Your task to perform on an android device: toggle wifi Image 0: 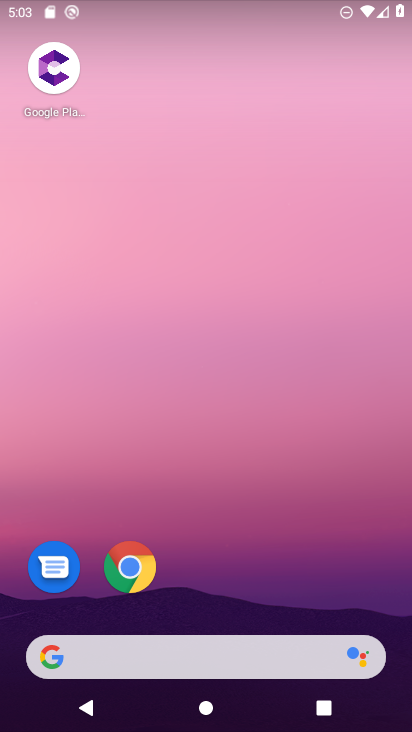
Step 0: drag from (221, 586) to (226, 68)
Your task to perform on an android device: toggle wifi Image 1: 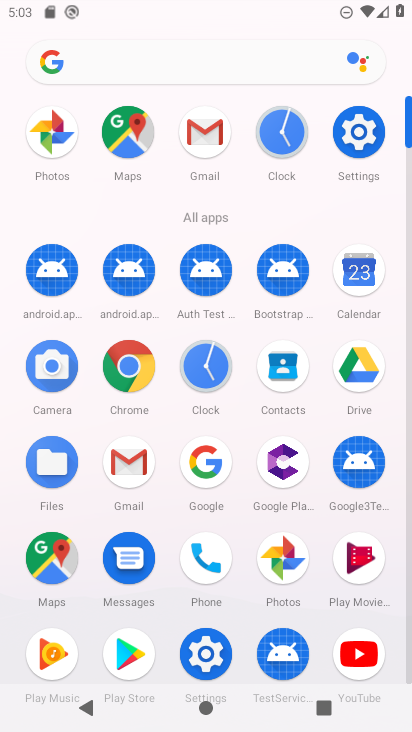
Step 1: click (358, 131)
Your task to perform on an android device: toggle wifi Image 2: 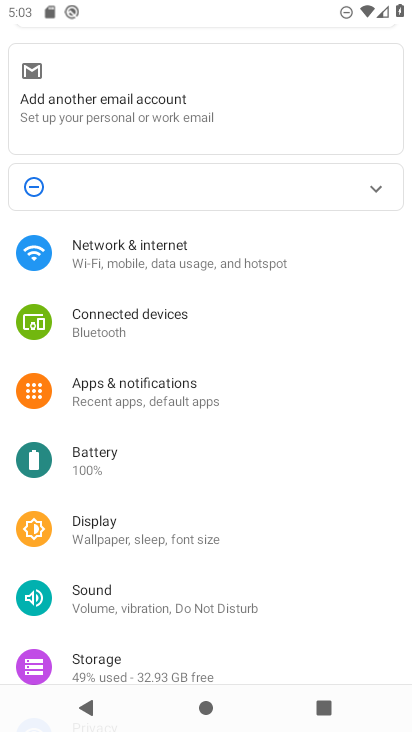
Step 2: click (140, 255)
Your task to perform on an android device: toggle wifi Image 3: 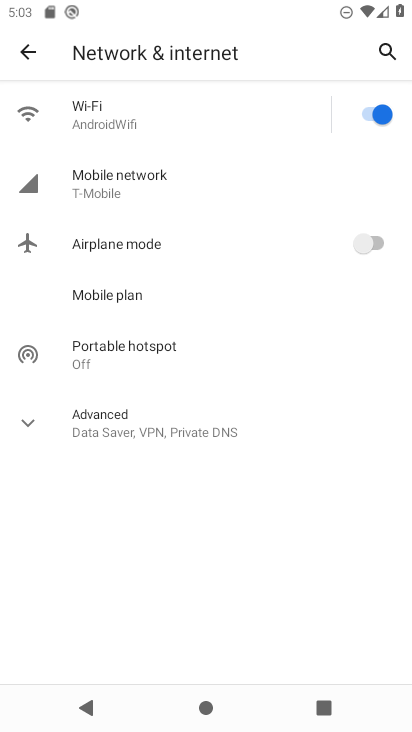
Step 3: click (391, 107)
Your task to perform on an android device: toggle wifi Image 4: 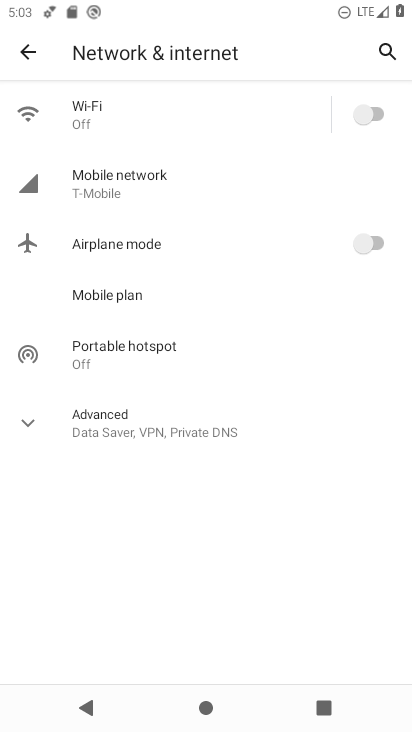
Step 4: task complete